Your task to perform on an android device: add a label to a message in the gmail app Image 0: 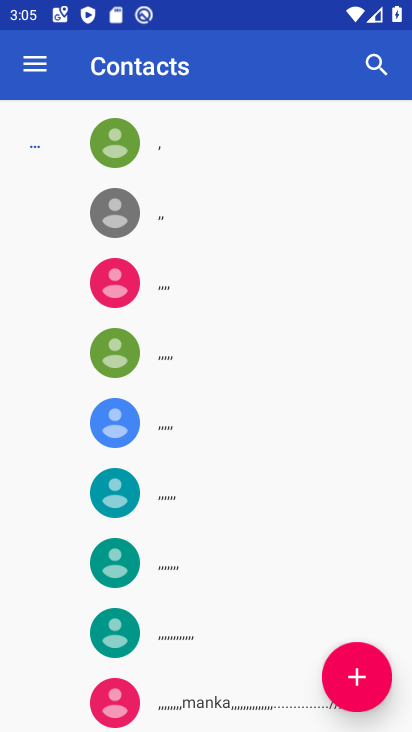
Step 0: press home button
Your task to perform on an android device: add a label to a message in the gmail app Image 1: 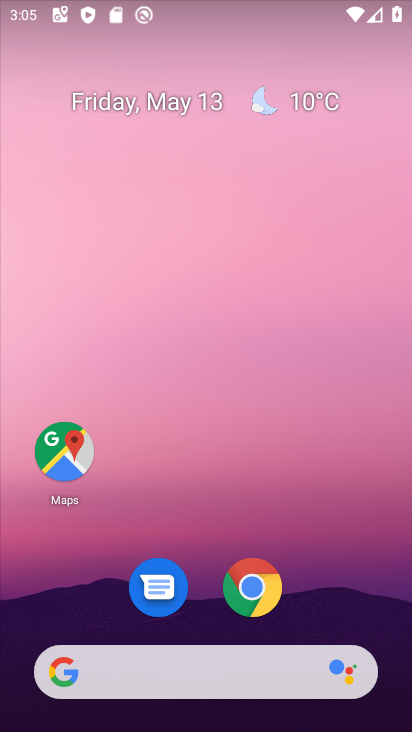
Step 1: drag from (209, 619) to (218, 97)
Your task to perform on an android device: add a label to a message in the gmail app Image 2: 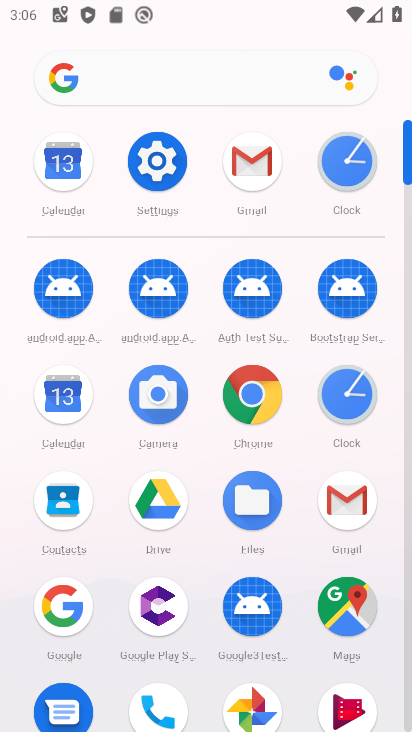
Step 2: click (348, 510)
Your task to perform on an android device: add a label to a message in the gmail app Image 3: 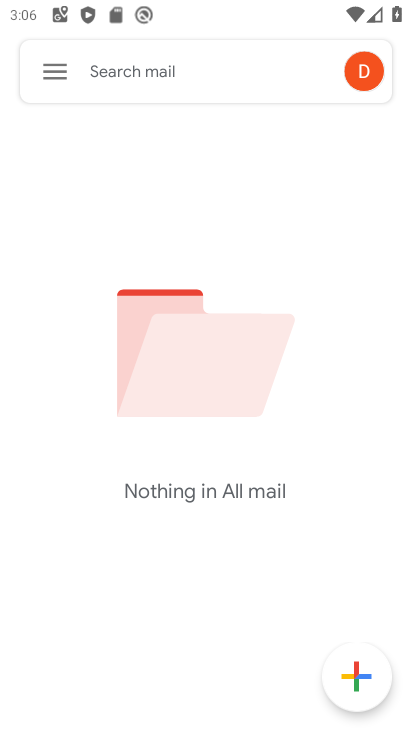
Step 3: task complete